Your task to perform on an android device: open wifi settings Image 0: 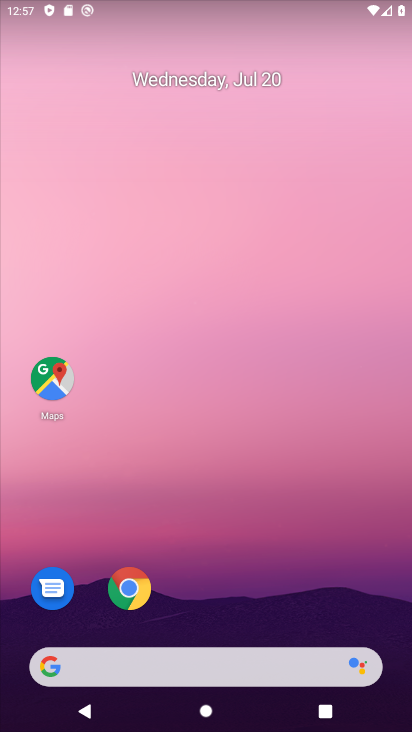
Step 0: drag from (62, 661) to (301, 211)
Your task to perform on an android device: open wifi settings Image 1: 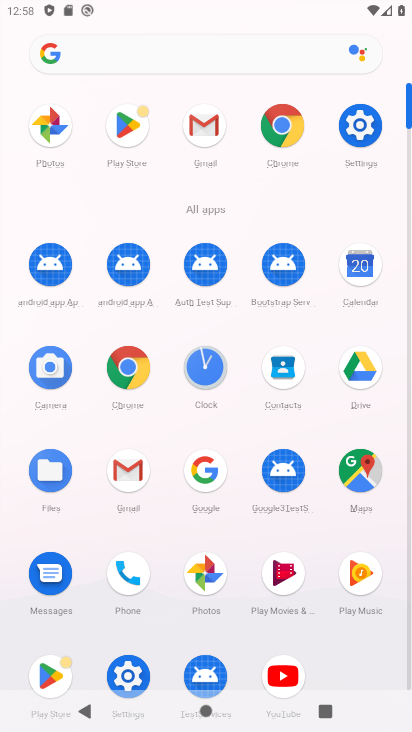
Step 1: click (353, 129)
Your task to perform on an android device: open wifi settings Image 2: 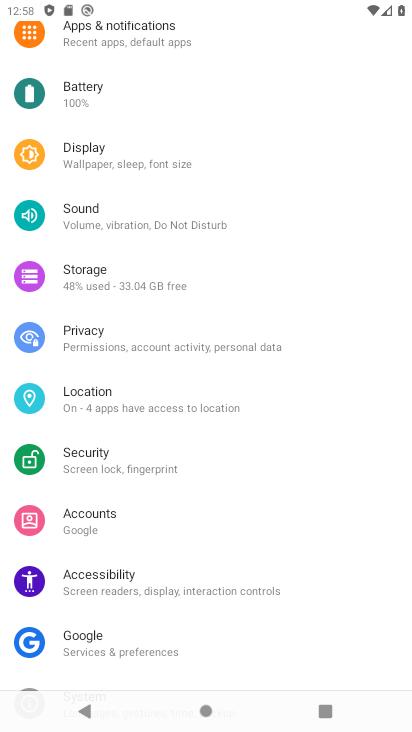
Step 2: drag from (106, 38) to (117, 612)
Your task to perform on an android device: open wifi settings Image 3: 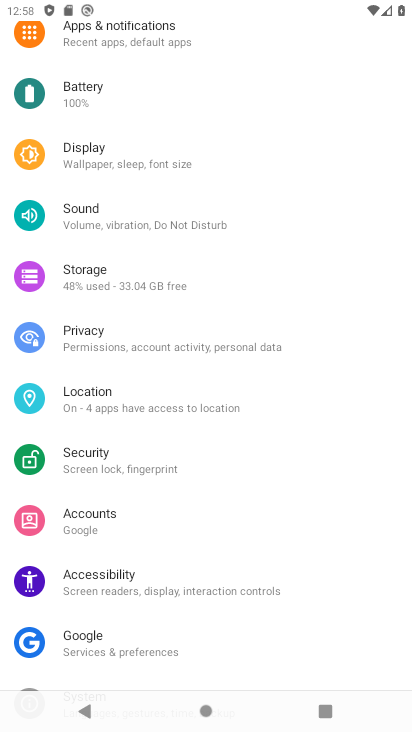
Step 3: drag from (37, 118) to (78, 595)
Your task to perform on an android device: open wifi settings Image 4: 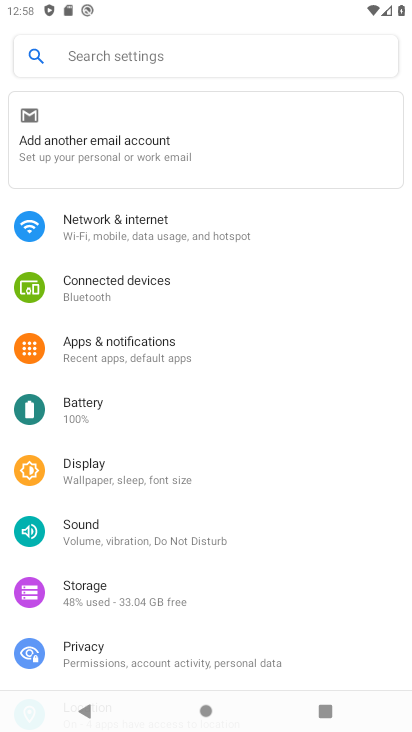
Step 4: click (184, 239)
Your task to perform on an android device: open wifi settings Image 5: 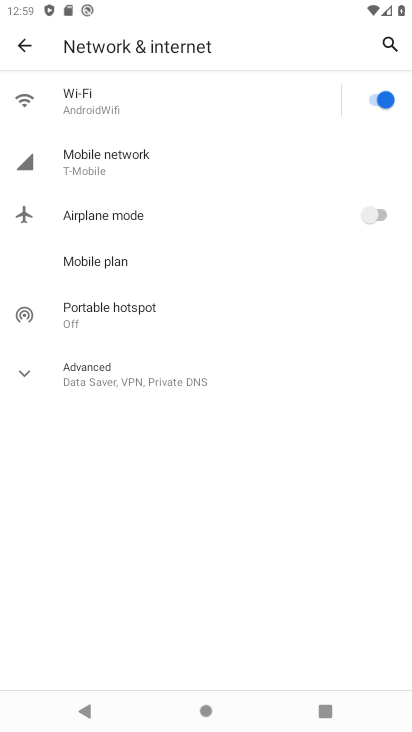
Step 5: task complete